Your task to perform on an android device: turn off priority inbox in the gmail app Image 0: 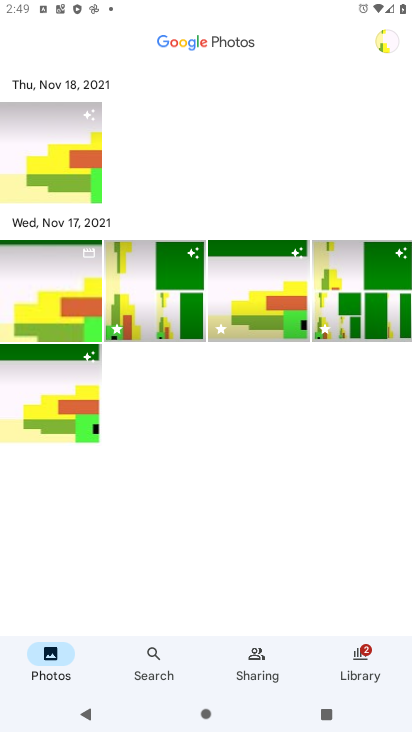
Step 0: press home button
Your task to perform on an android device: turn off priority inbox in the gmail app Image 1: 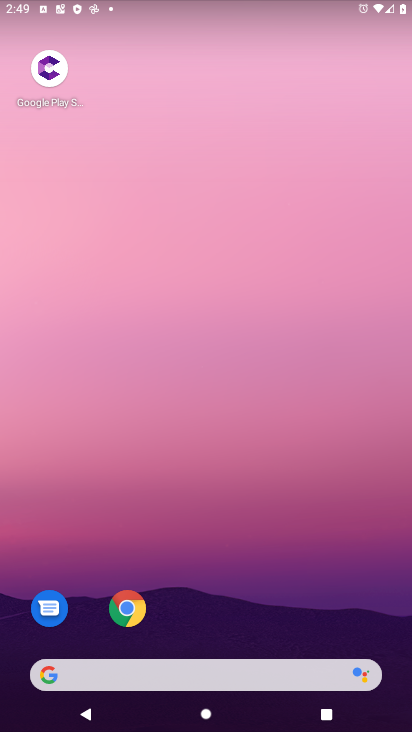
Step 1: drag from (374, 651) to (321, 25)
Your task to perform on an android device: turn off priority inbox in the gmail app Image 2: 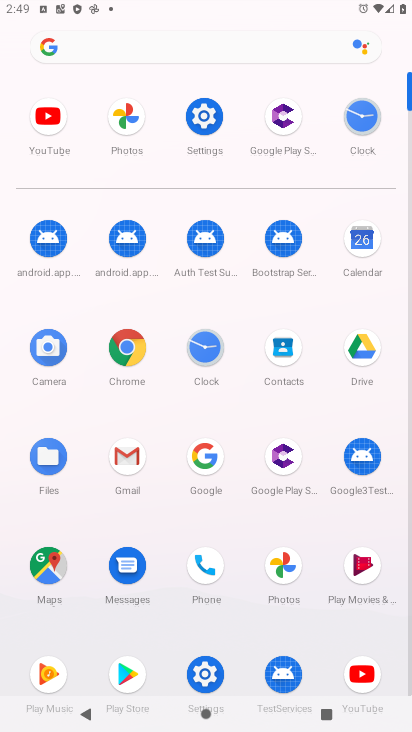
Step 2: click (411, 690)
Your task to perform on an android device: turn off priority inbox in the gmail app Image 3: 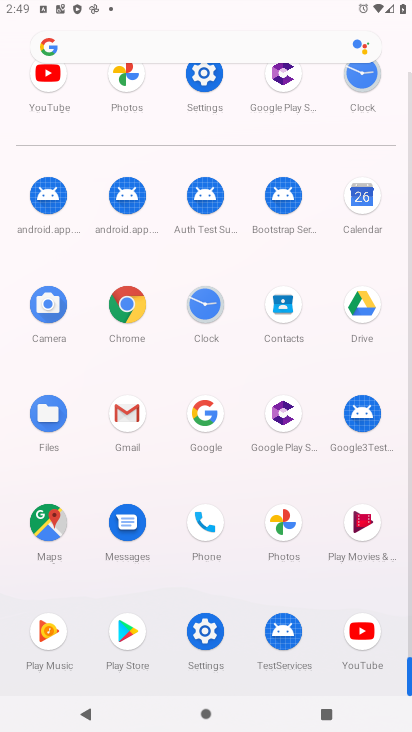
Step 3: click (127, 417)
Your task to perform on an android device: turn off priority inbox in the gmail app Image 4: 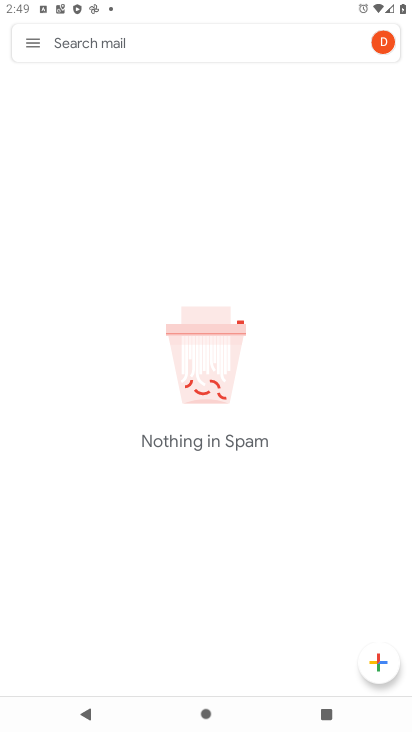
Step 4: click (32, 42)
Your task to perform on an android device: turn off priority inbox in the gmail app Image 5: 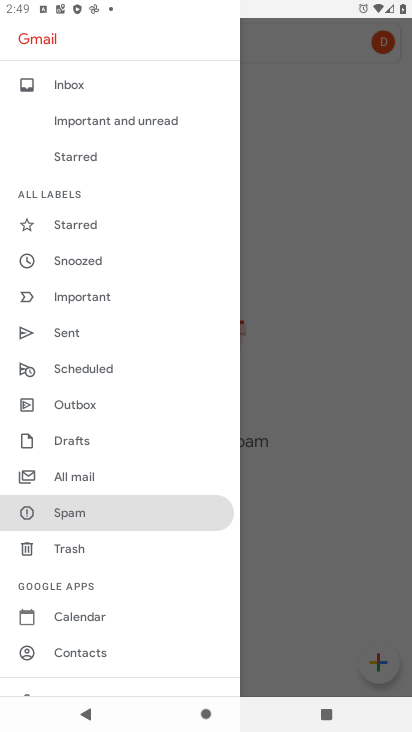
Step 5: drag from (129, 607) to (157, 329)
Your task to perform on an android device: turn off priority inbox in the gmail app Image 6: 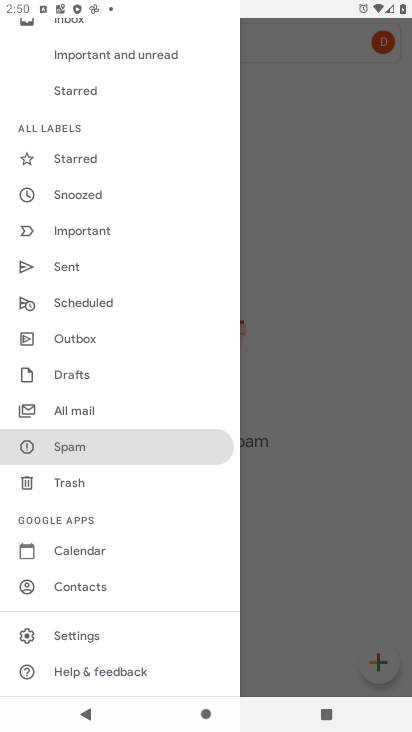
Step 6: click (61, 634)
Your task to perform on an android device: turn off priority inbox in the gmail app Image 7: 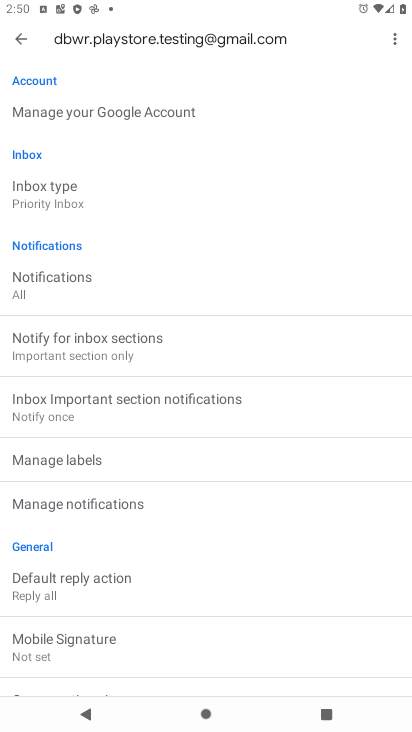
Step 7: click (41, 185)
Your task to perform on an android device: turn off priority inbox in the gmail app Image 8: 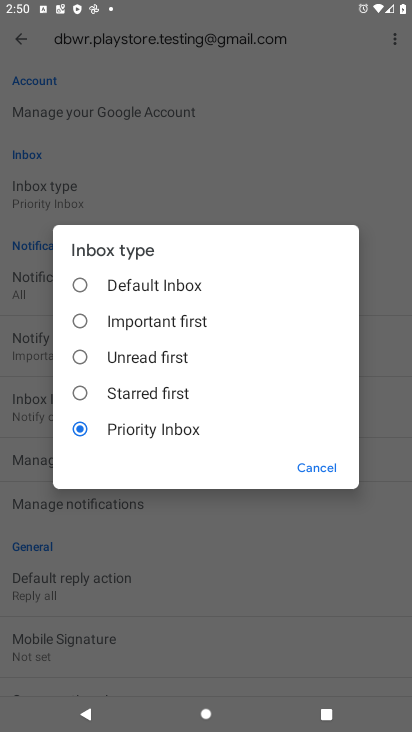
Step 8: click (84, 282)
Your task to perform on an android device: turn off priority inbox in the gmail app Image 9: 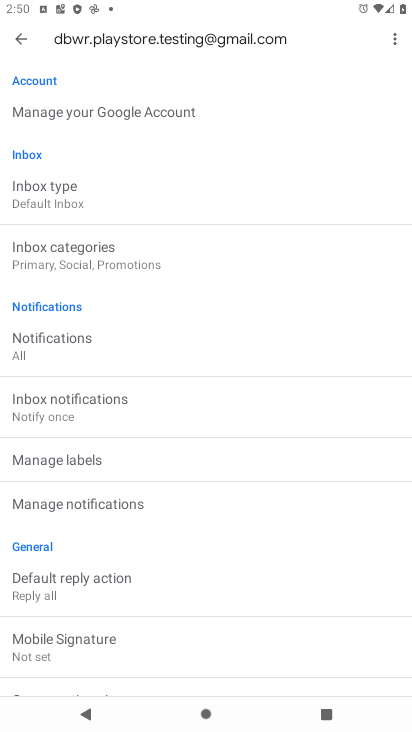
Step 9: task complete